Your task to perform on an android device: turn off priority inbox in the gmail app Image 0: 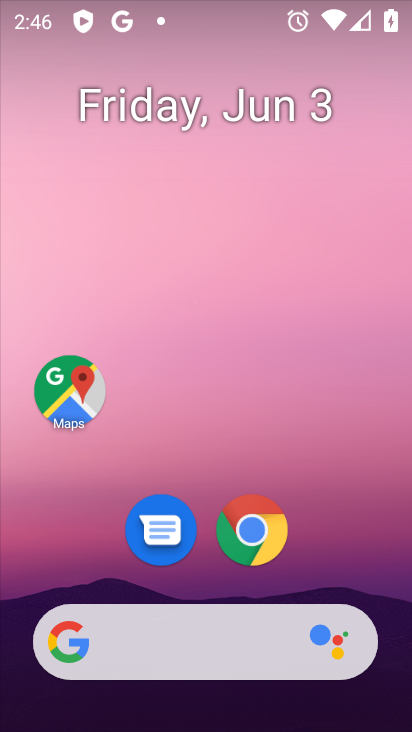
Step 0: drag from (144, 677) to (283, 77)
Your task to perform on an android device: turn off priority inbox in the gmail app Image 1: 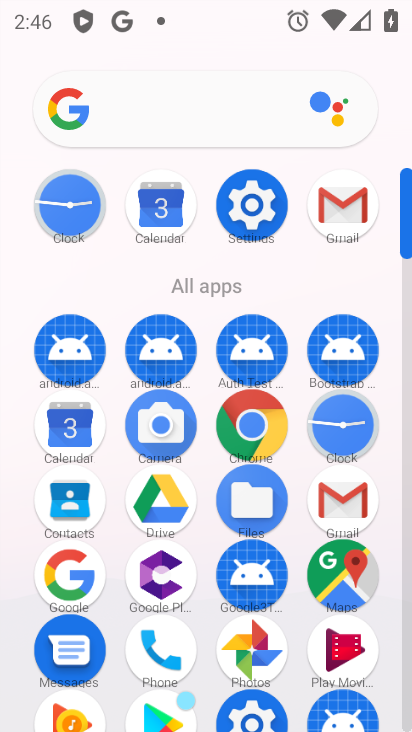
Step 1: click (355, 510)
Your task to perform on an android device: turn off priority inbox in the gmail app Image 2: 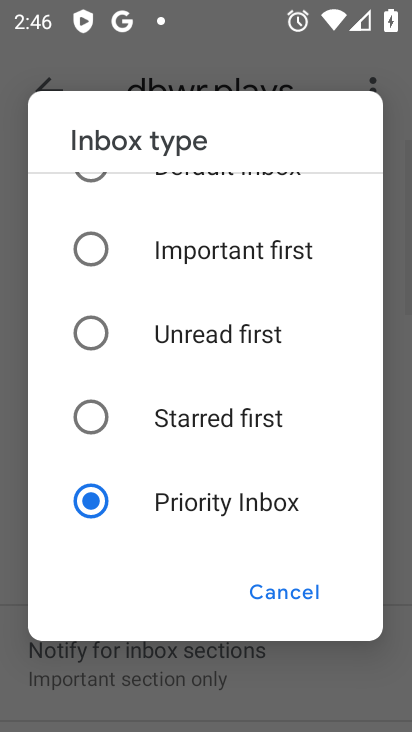
Step 2: drag from (195, 226) to (192, 579)
Your task to perform on an android device: turn off priority inbox in the gmail app Image 3: 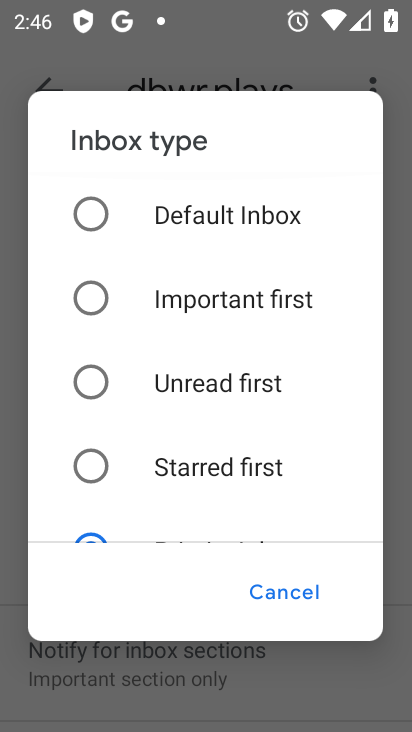
Step 3: click (183, 221)
Your task to perform on an android device: turn off priority inbox in the gmail app Image 4: 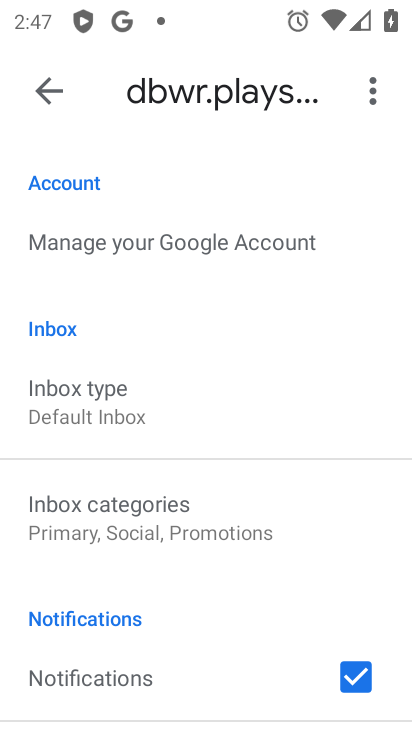
Step 4: task complete